Your task to perform on an android device: toggle translation in the chrome app Image 0: 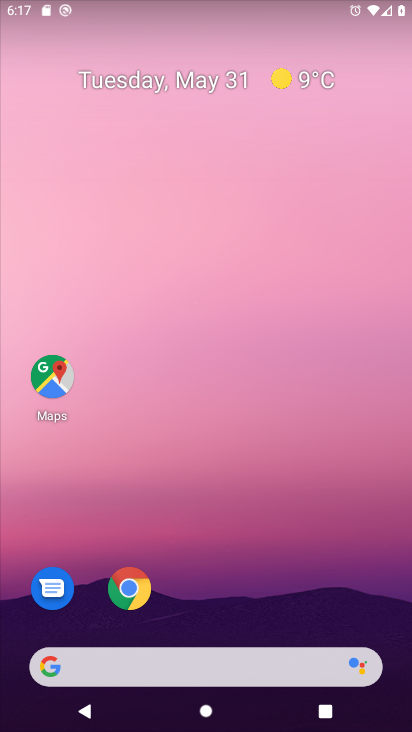
Step 0: click (125, 576)
Your task to perform on an android device: toggle translation in the chrome app Image 1: 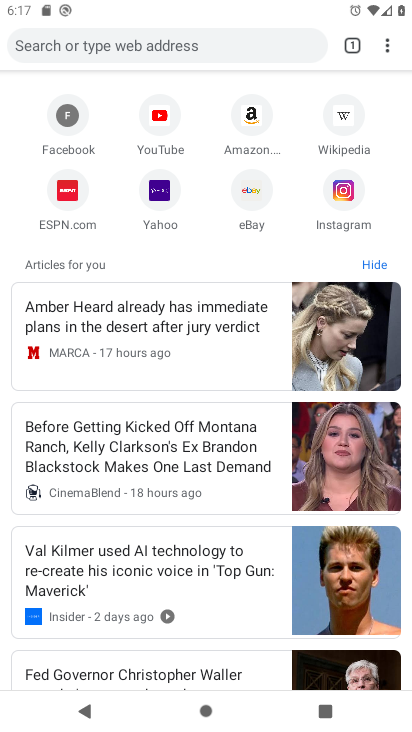
Step 1: click (390, 46)
Your task to perform on an android device: toggle translation in the chrome app Image 2: 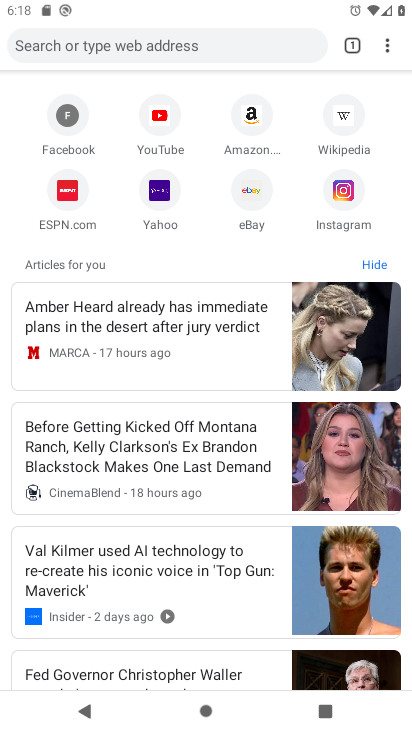
Step 2: click (381, 40)
Your task to perform on an android device: toggle translation in the chrome app Image 3: 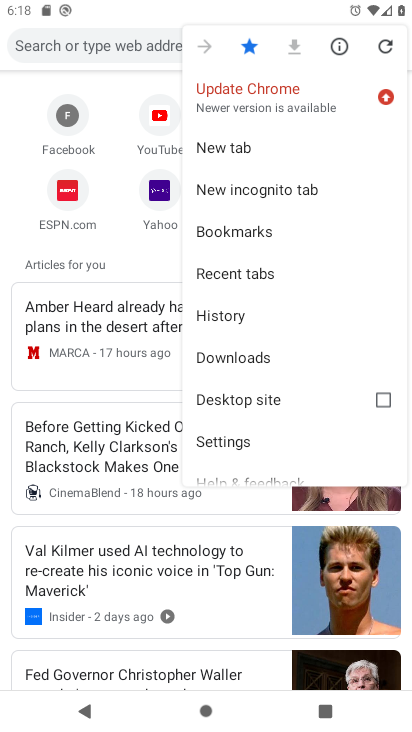
Step 3: click (237, 437)
Your task to perform on an android device: toggle translation in the chrome app Image 4: 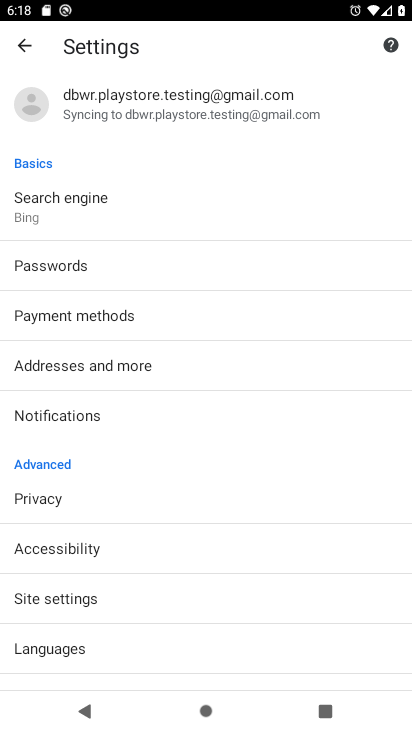
Step 4: click (58, 657)
Your task to perform on an android device: toggle translation in the chrome app Image 5: 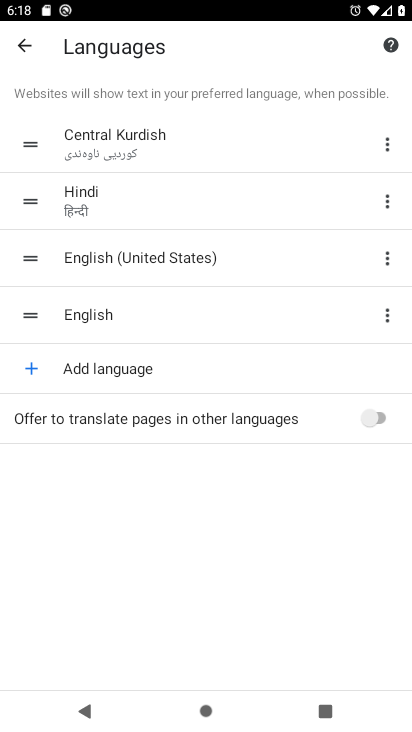
Step 5: click (385, 419)
Your task to perform on an android device: toggle translation in the chrome app Image 6: 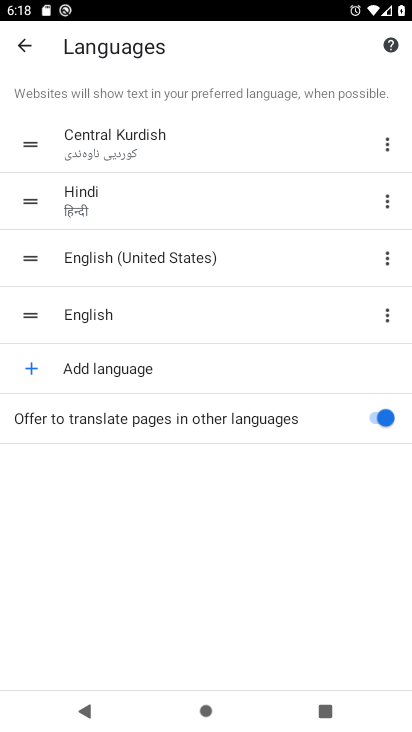
Step 6: task complete